Your task to perform on an android device: check data usage Image 0: 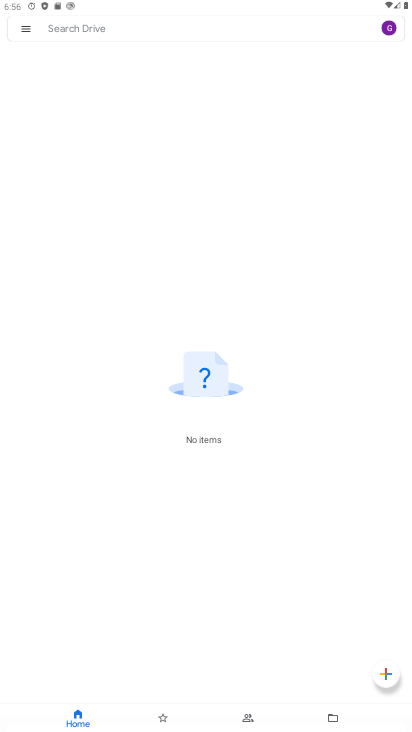
Step 0: press home button
Your task to perform on an android device: check data usage Image 1: 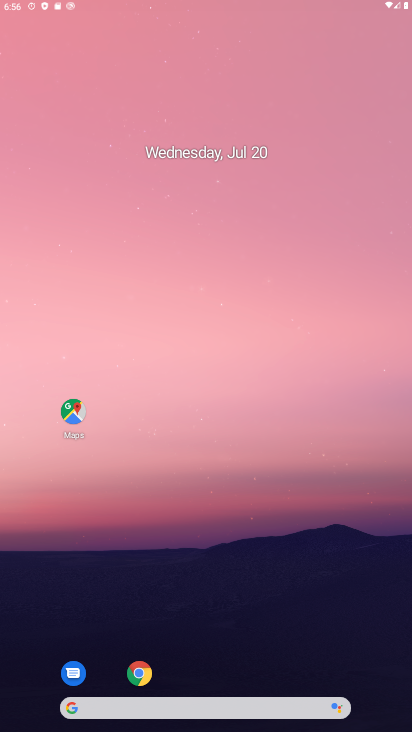
Step 1: drag from (382, 683) to (153, 2)
Your task to perform on an android device: check data usage Image 2: 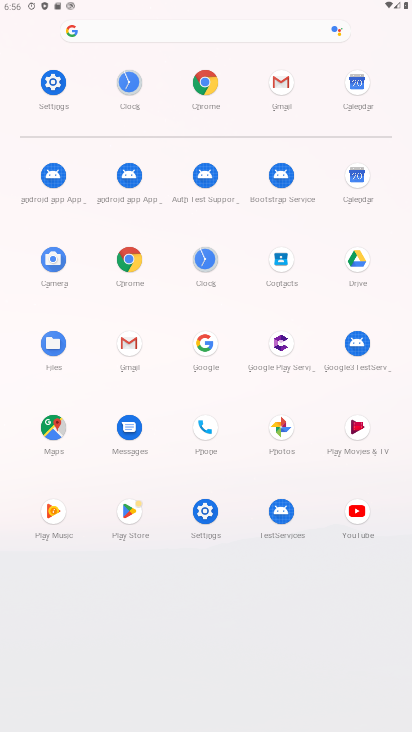
Step 2: click (54, 90)
Your task to perform on an android device: check data usage Image 3: 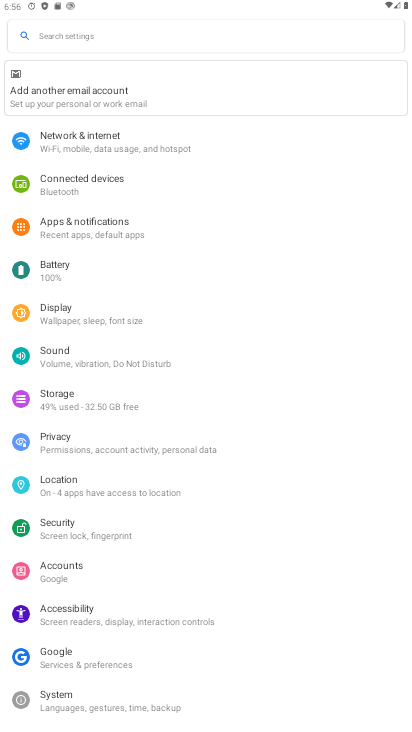
Step 3: click (117, 141)
Your task to perform on an android device: check data usage Image 4: 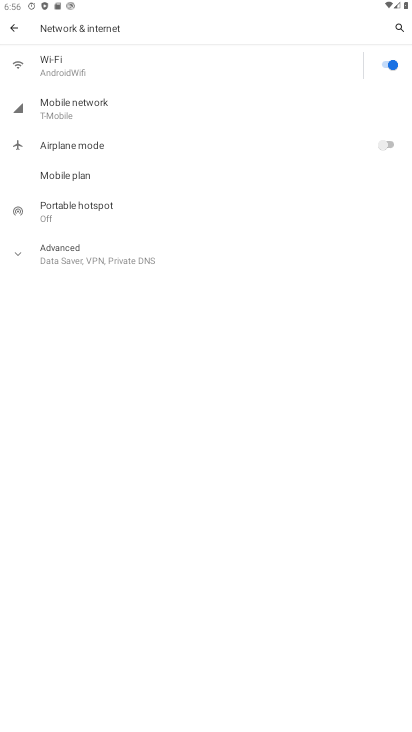
Step 4: click (79, 122)
Your task to perform on an android device: check data usage Image 5: 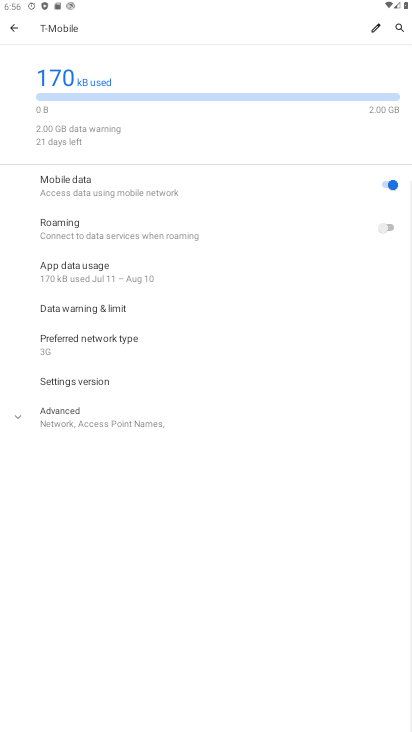
Step 5: click (84, 284)
Your task to perform on an android device: check data usage Image 6: 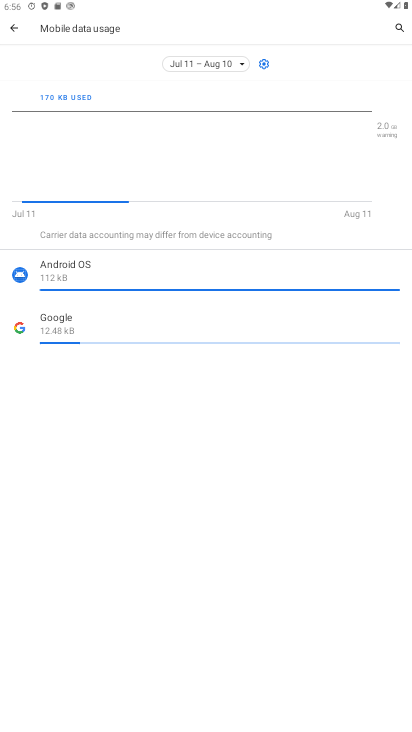
Step 6: task complete